Your task to perform on an android device: What's the latest news in space technology? Image 0: 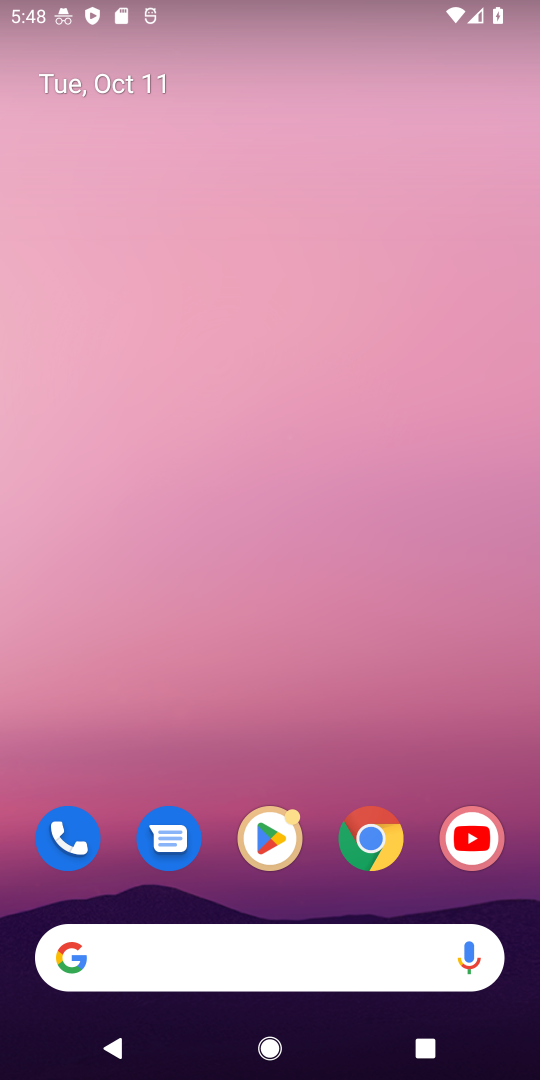
Step 0: click (377, 833)
Your task to perform on an android device: What's the latest news in space technology? Image 1: 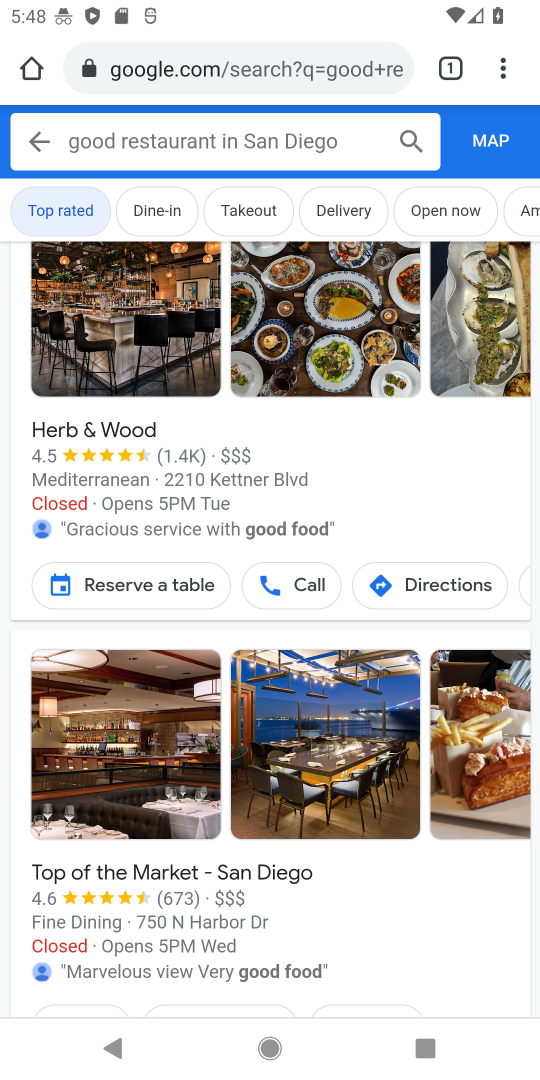
Step 1: click (290, 65)
Your task to perform on an android device: What's the latest news in space technology? Image 2: 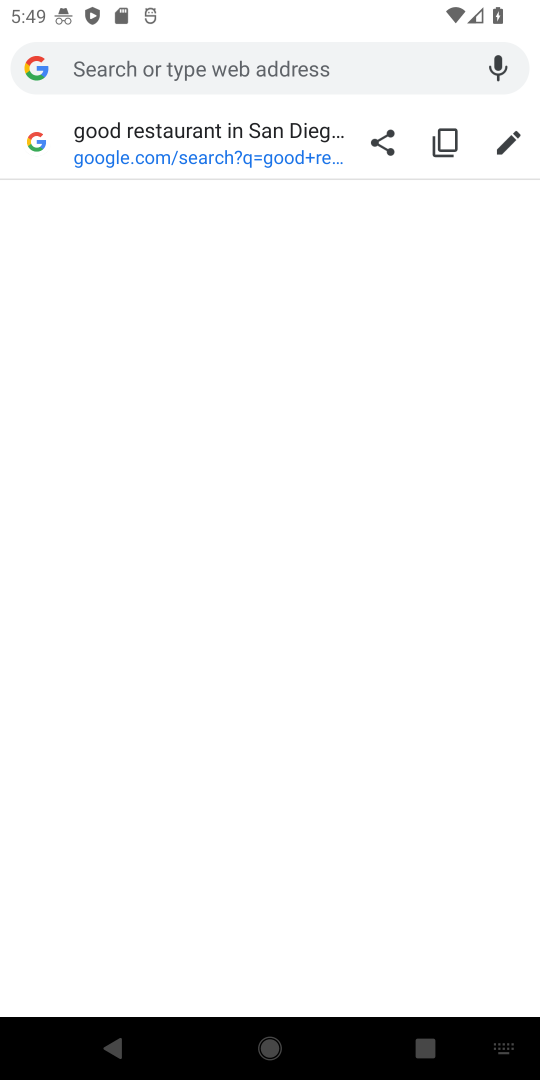
Step 2: type "space technology"
Your task to perform on an android device: What's the latest news in space technology? Image 3: 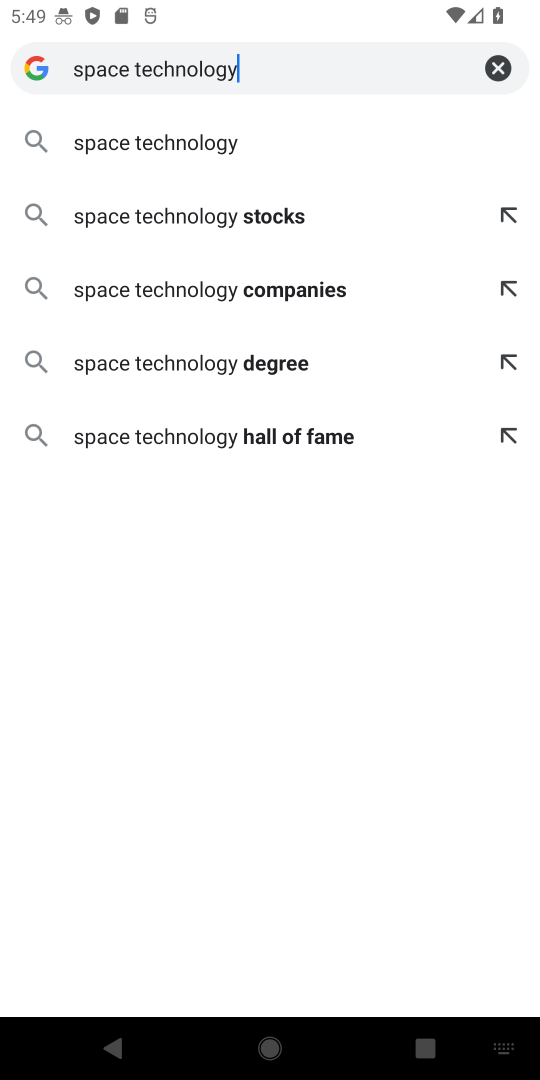
Step 3: click (197, 140)
Your task to perform on an android device: What's the latest news in space technology? Image 4: 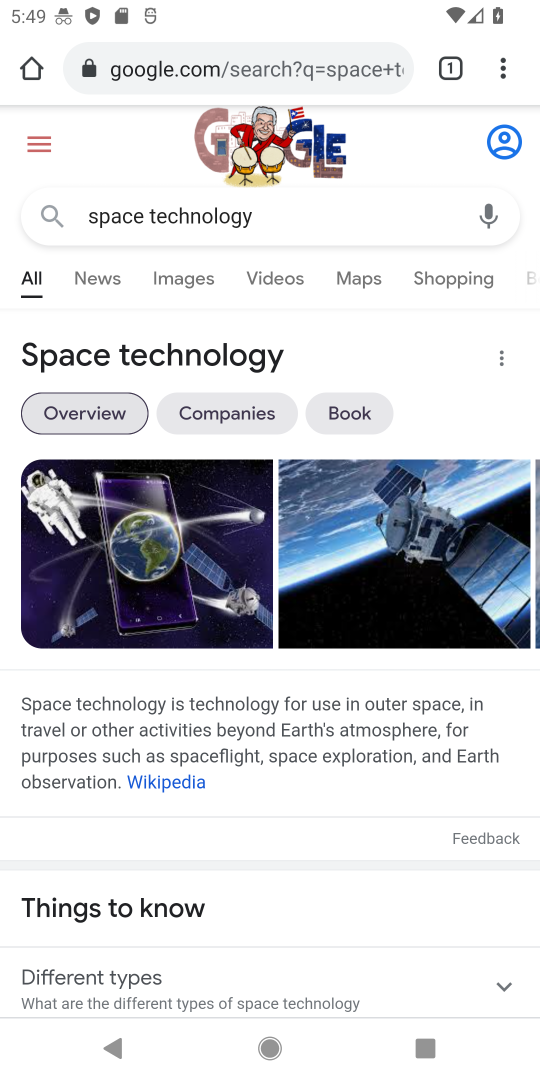
Step 4: click (100, 273)
Your task to perform on an android device: What's the latest news in space technology? Image 5: 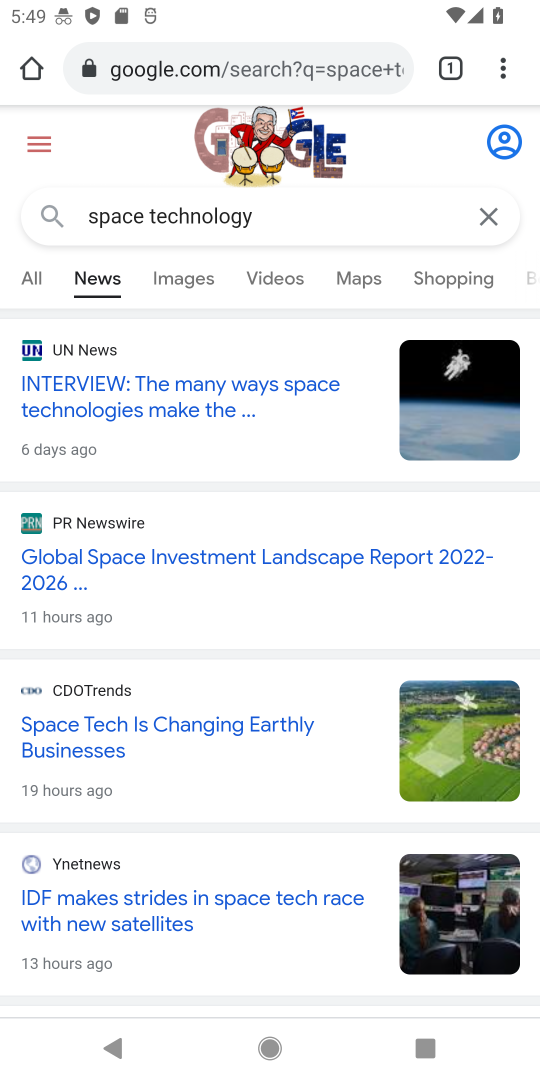
Step 5: task complete